Your task to perform on an android device: Empty the shopping cart on bestbuy. Search for "usb-b" on bestbuy, select the first entry, and add it to the cart. Image 0: 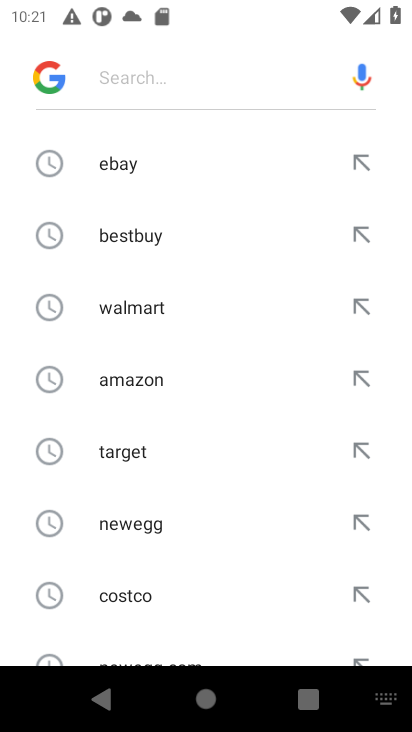
Step 0: click (147, 253)
Your task to perform on an android device: Empty the shopping cart on bestbuy. Search for "usb-b" on bestbuy, select the first entry, and add it to the cart. Image 1: 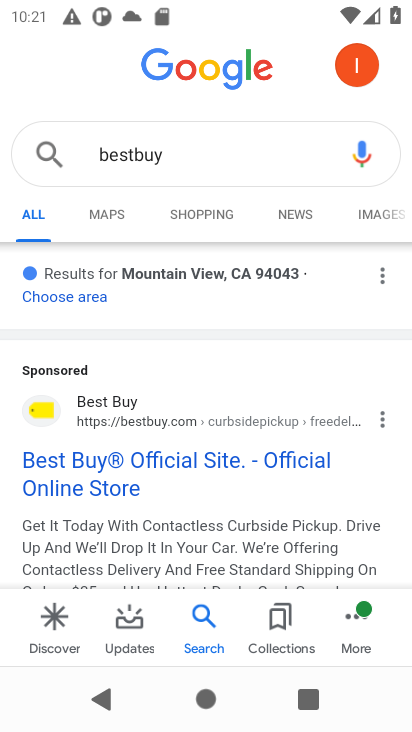
Step 1: click (108, 418)
Your task to perform on an android device: Empty the shopping cart on bestbuy. Search for "usb-b" on bestbuy, select the first entry, and add it to the cart. Image 2: 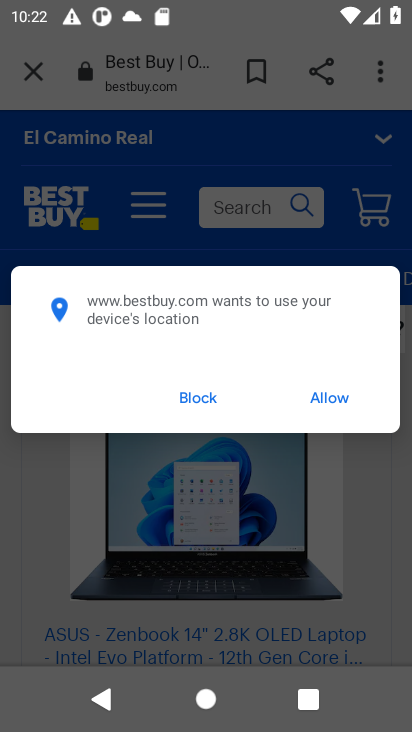
Step 2: click (204, 401)
Your task to perform on an android device: Empty the shopping cart on bestbuy. Search for "usb-b" on bestbuy, select the first entry, and add it to the cart. Image 3: 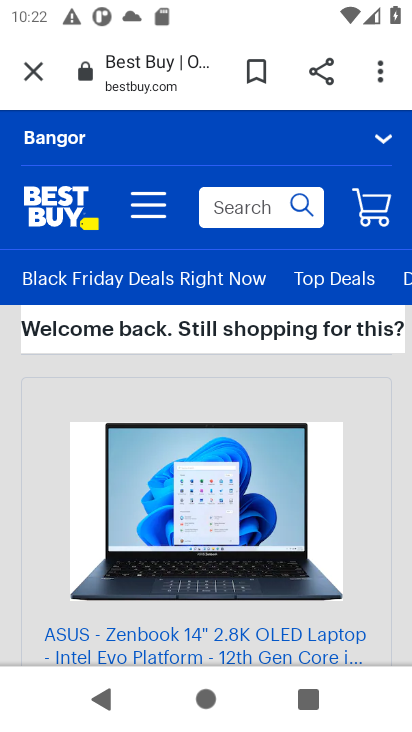
Step 3: click (221, 202)
Your task to perform on an android device: Empty the shopping cart on bestbuy. Search for "usb-b" on bestbuy, select the first entry, and add it to the cart. Image 4: 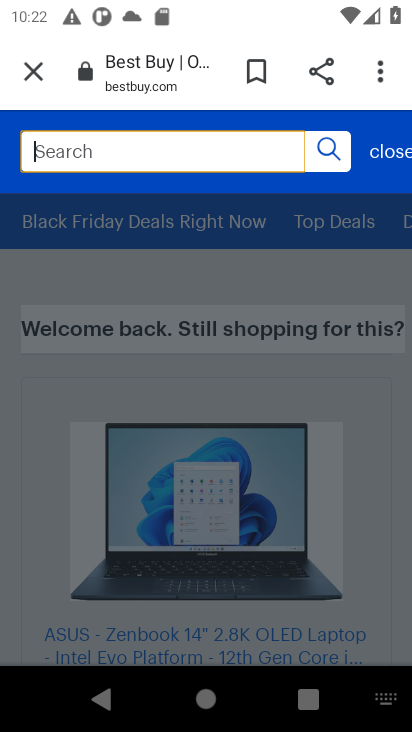
Step 4: type "usb-b"
Your task to perform on an android device: Empty the shopping cart on bestbuy. Search for "usb-b" on bestbuy, select the first entry, and add it to the cart. Image 5: 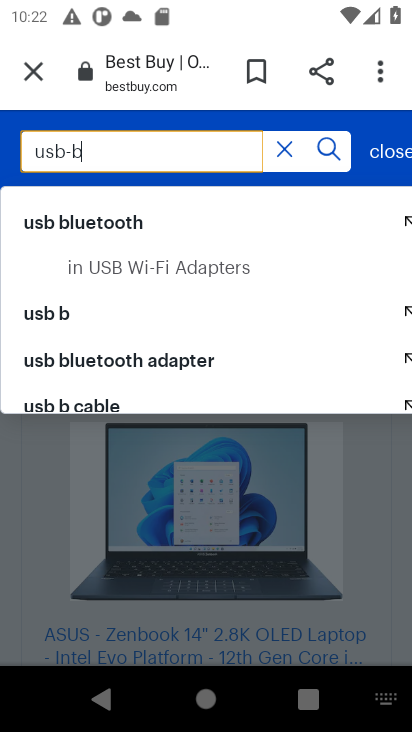
Step 5: click (41, 320)
Your task to perform on an android device: Empty the shopping cart on bestbuy. Search for "usb-b" on bestbuy, select the first entry, and add it to the cart. Image 6: 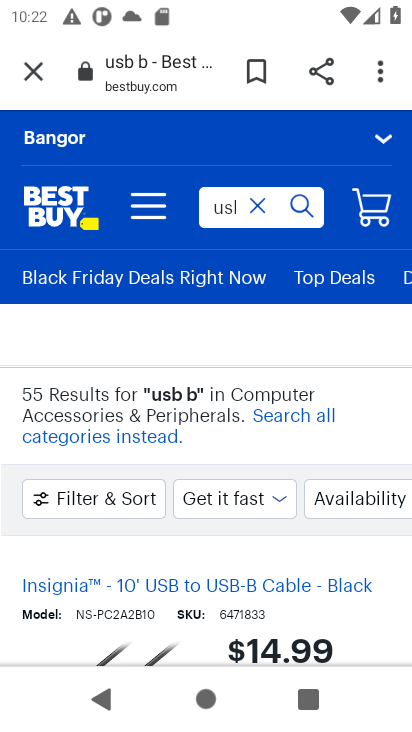
Step 6: drag from (132, 558) to (142, 167)
Your task to perform on an android device: Empty the shopping cart on bestbuy. Search for "usb-b" on bestbuy, select the first entry, and add it to the cart. Image 7: 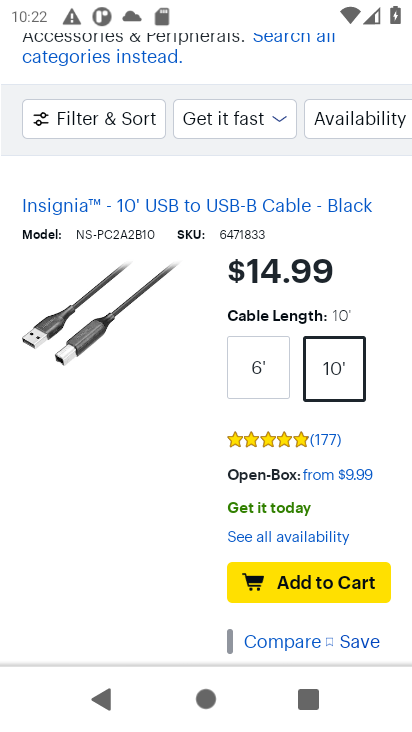
Step 7: click (302, 588)
Your task to perform on an android device: Empty the shopping cart on bestbuy. Search for "usb-b" on bestbuy, select the first entry, and add it to the cart. Image 8: 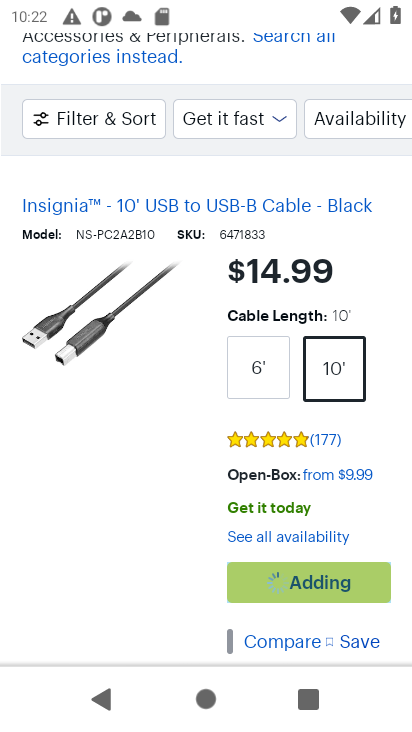
Step 8: task complete